Your task to perform on an android device: Open calendar and show me the first week of next month Image 0: 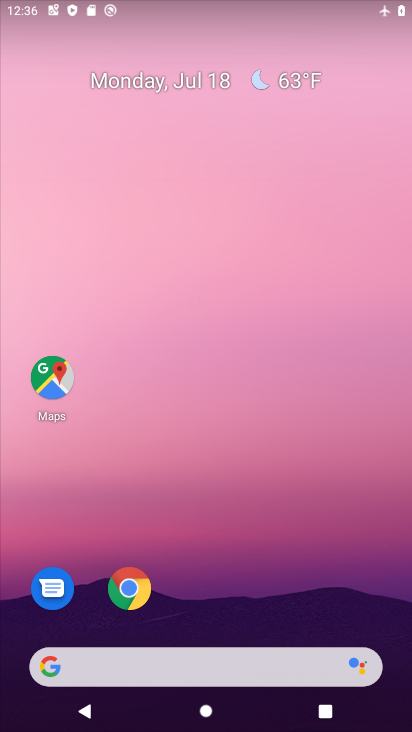
Step 0: click (234, 126)
Your task to perform on an android device: Open calendar and show me the first week of next month Image 1: 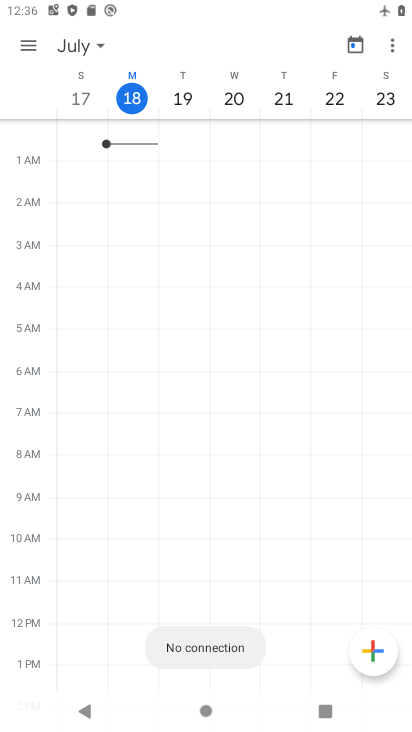
Step 1: press home button
Your task to perform on an android device: Open calendar and show me the first week of next month Image 2: 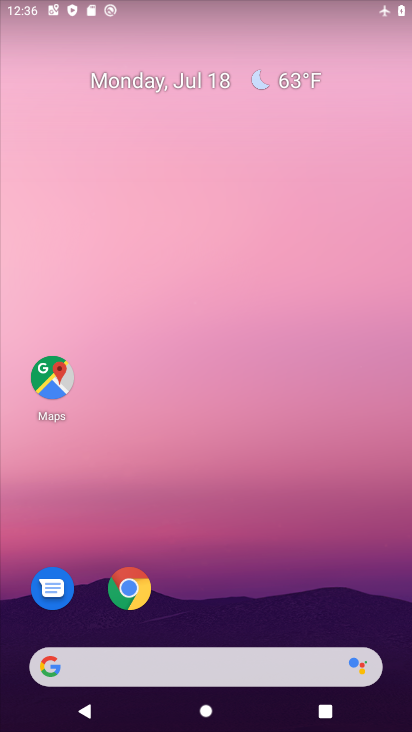
Step 2: drag from (226, 699) to (219, 152)
Your task to perform on an android device: Open calendar and show me the first week of next month Image 3: 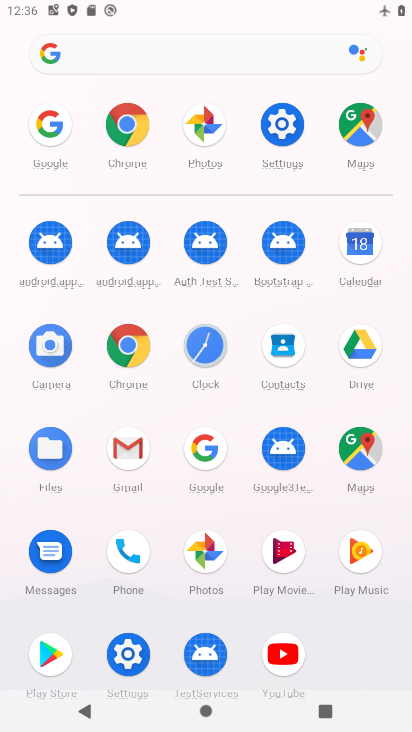
Step 3: click (358, 245)
Your task to perform on an android device: Open calendar and show me the first week of next month Image 4: 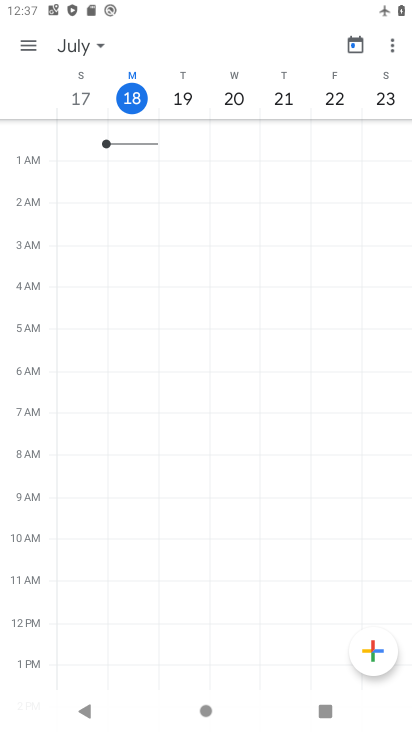
Step 4: click (103, 45)
Your task to perform on an android device: Open calendar and show me the first week of next month Image 5: 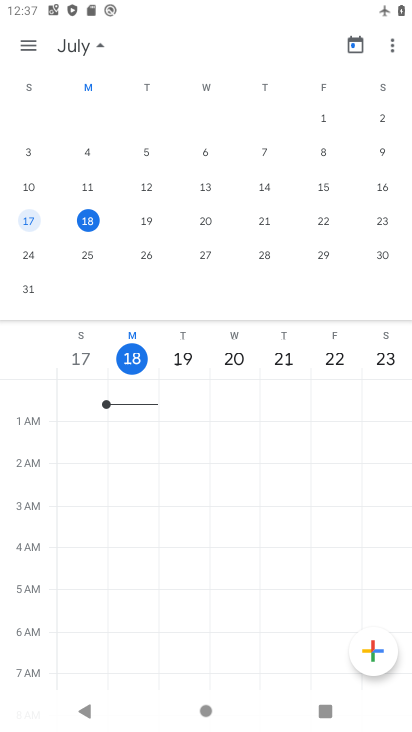
Step 5: drag from (291, 226) to (40, 226)
Your task to perform on an android device: Open calendar and show me the first week of next month Image 6: 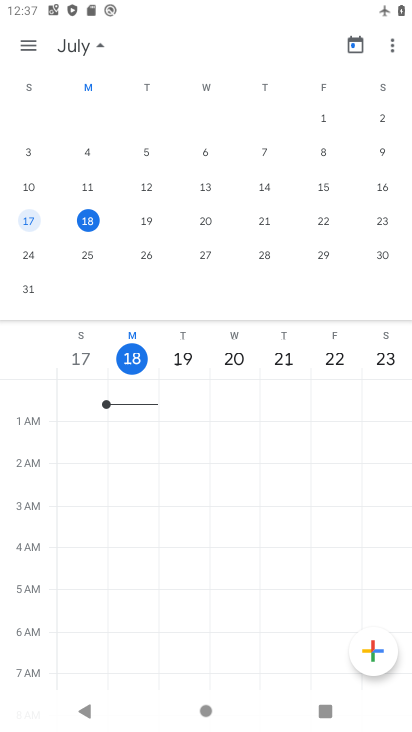
Step 6: drag from (339, 198) to (71, 197)
Your task to perform on an android device: Open calendar and show me the first week of next month Image 7: 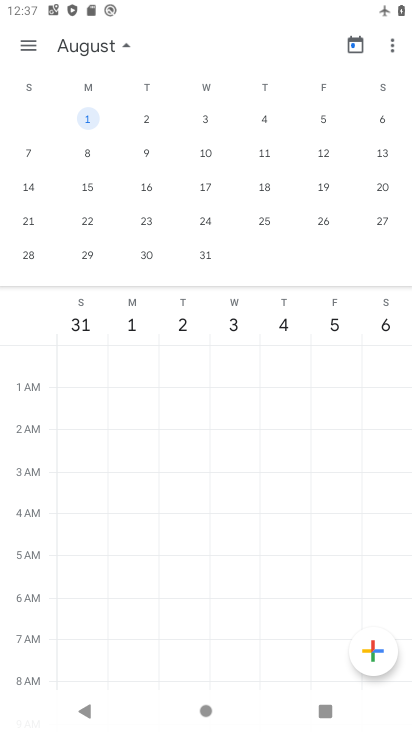
Step 7: click (26, 50)
Your task to perform on an android device: Open calendar and show me the first week of next month Image 8: 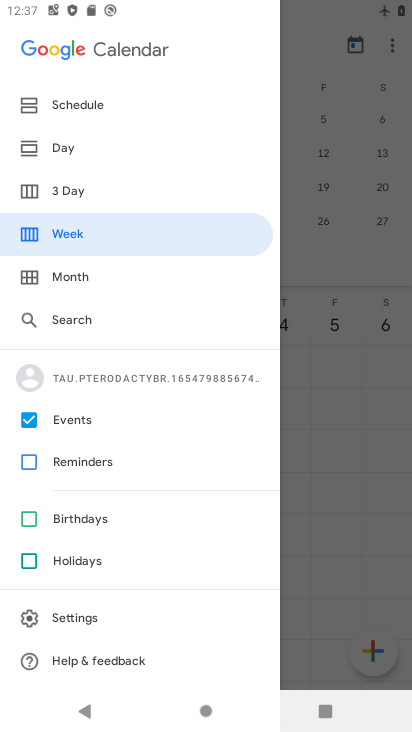
Step 8: click (63, 227)
Your task to perform on an android device: Open calendar and show me the first week of next month Image 9: 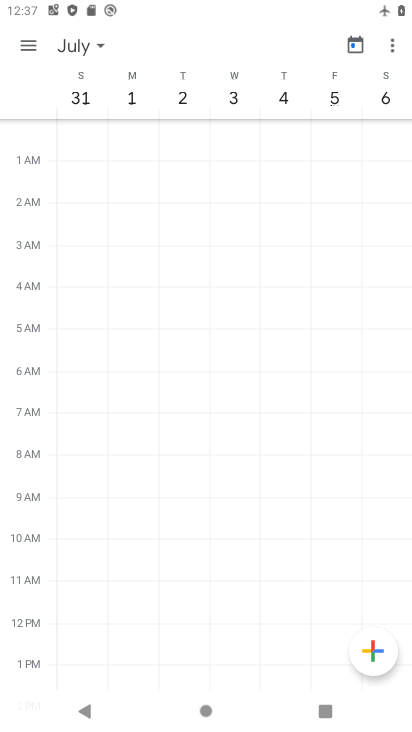
Step 9: task complete